Your task to perform on an android device: Open display settings Image 0: 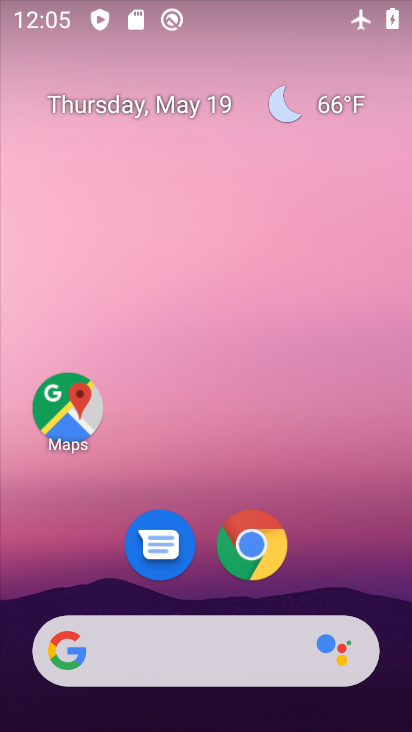
Step 0: drag from (218, 716) to (330, 20)
Your task to perform on an android device: Open display settings Image 1: 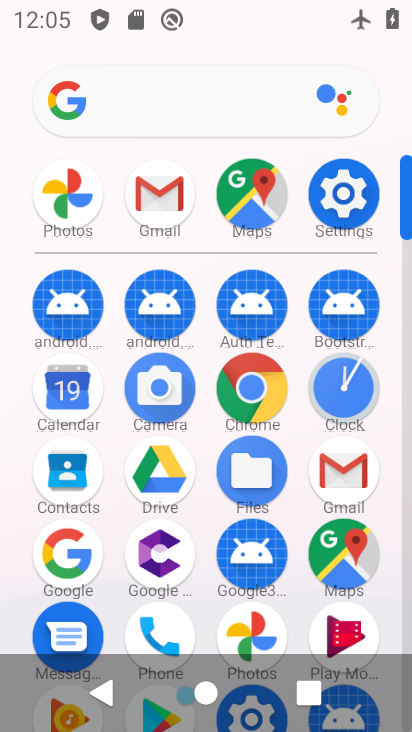
Step 1: click (345, 193)
Your task to perform on an android device: Open display settings Image 2: 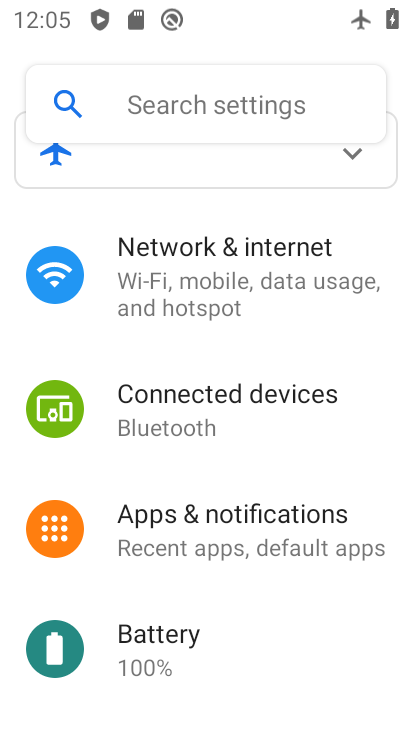
Step 2: drag from (248, 651) to (212, 85)
Your task to perform on an android device: Open display settings Image 3: 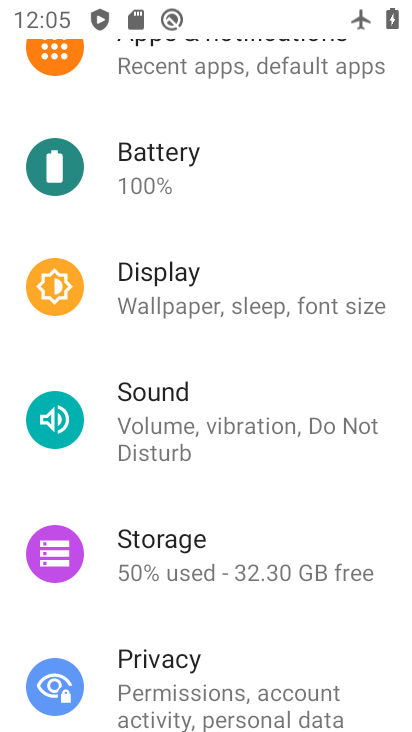
Step 3: click (253, 311)
Your task to perform on an android device: Open display settings Image 4: 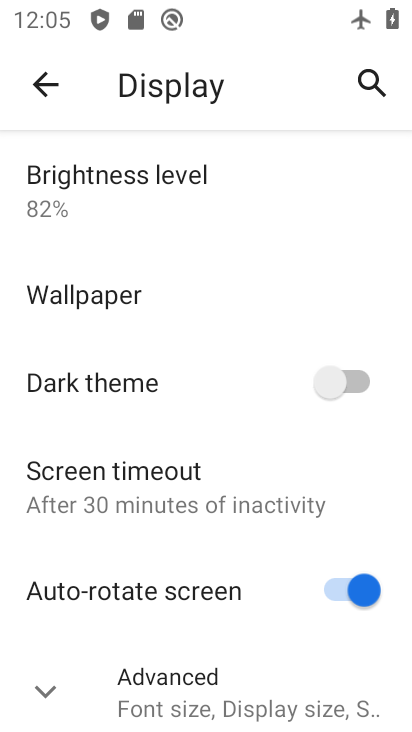
Step 4: task complete